Your task to perform on an android device: View the shopping cart on costco.com. Add logitech g903 to the cart on costco.com Image 0: 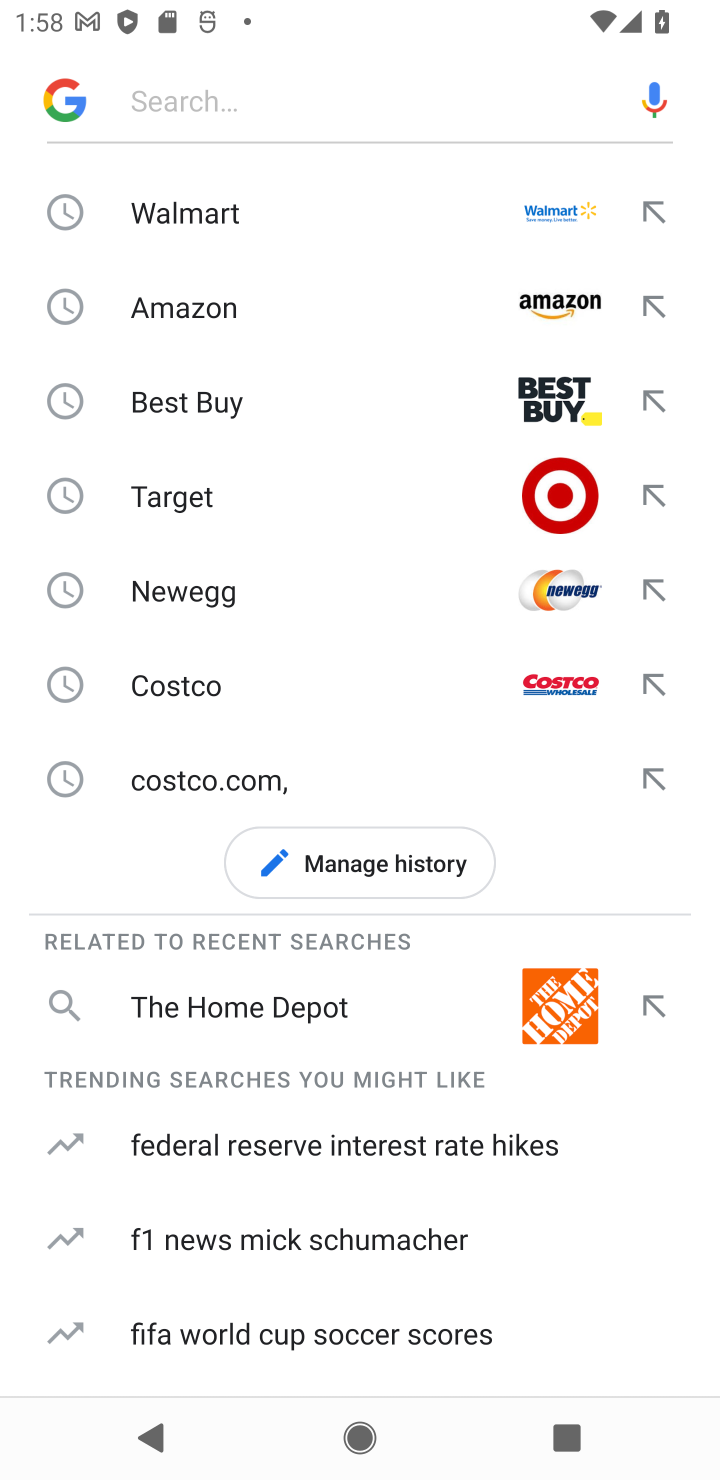
Step 0: press home button
Your task to perform on an android device: View the shopping cart on costco.com. Add logitech g903 to the cart on costco.com Image 1: 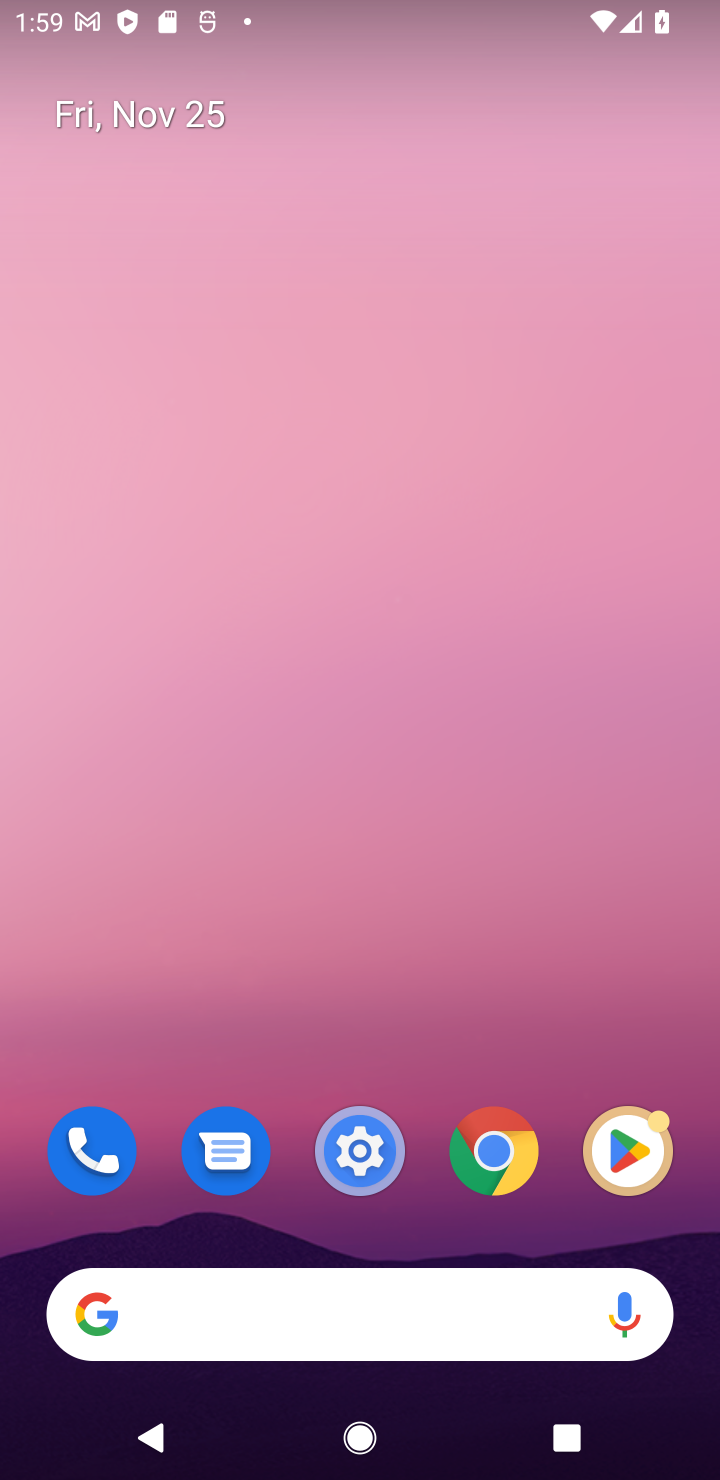
Step 1: click (401, 1343)
Your task to perform on an android device: View the shopping cart on costco.com. Add logitech g903 to the cart on costco.com Image 2: 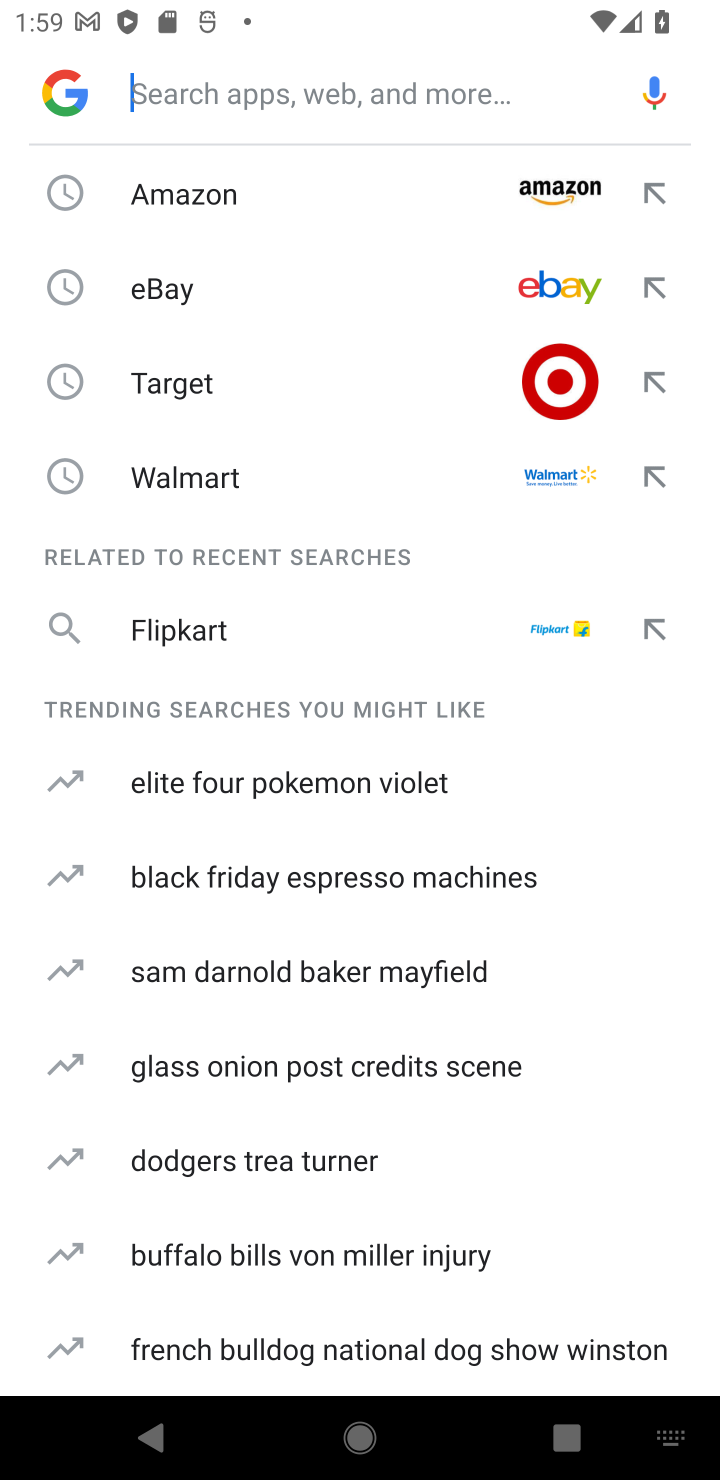
Step 2: type "costco"
Your task to perform on an android device: View the shopping cart on costco.com. Add logitech g903 to the cart on costco.com Image 3: 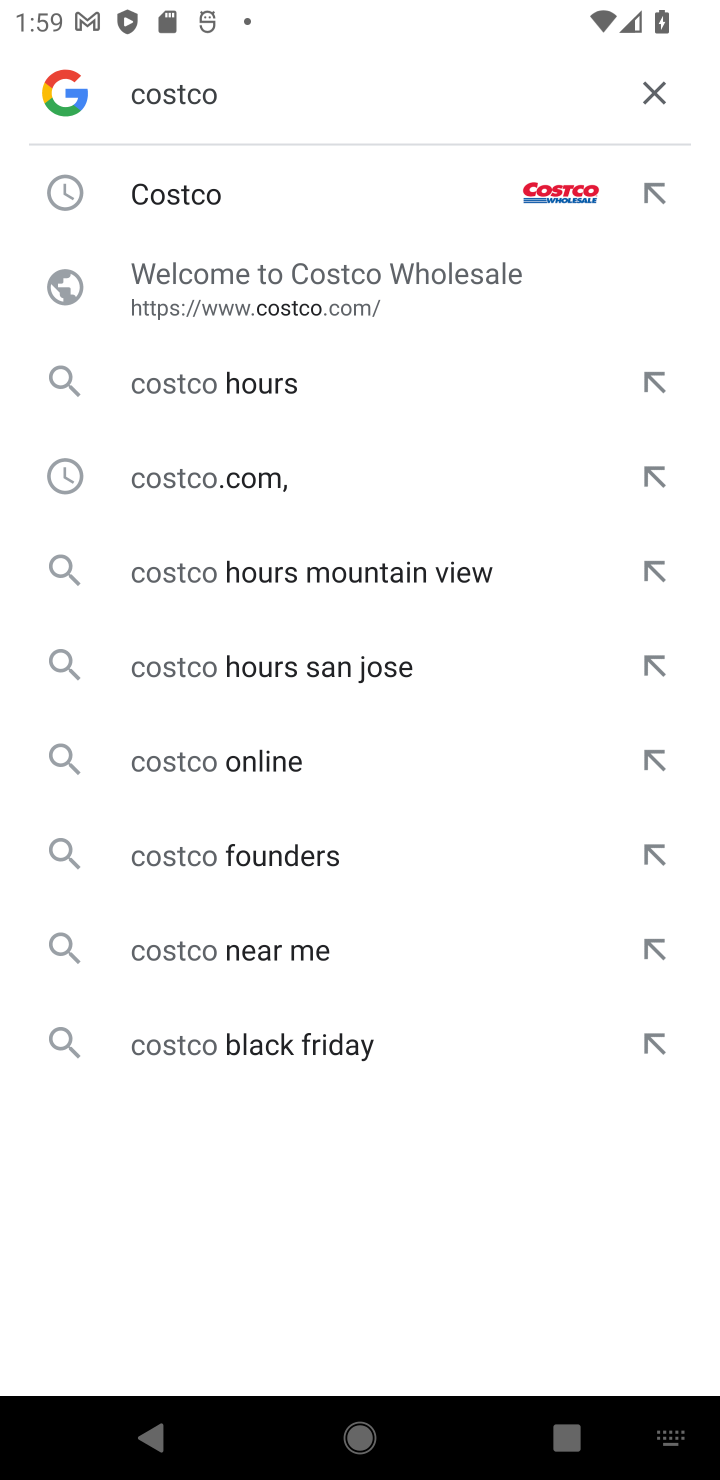
Step 3: click (309, 218)
Your task to perform on an android device: View the shopping cart on costco.com. Add logitech g903 to the cart on costco.com Image 4: 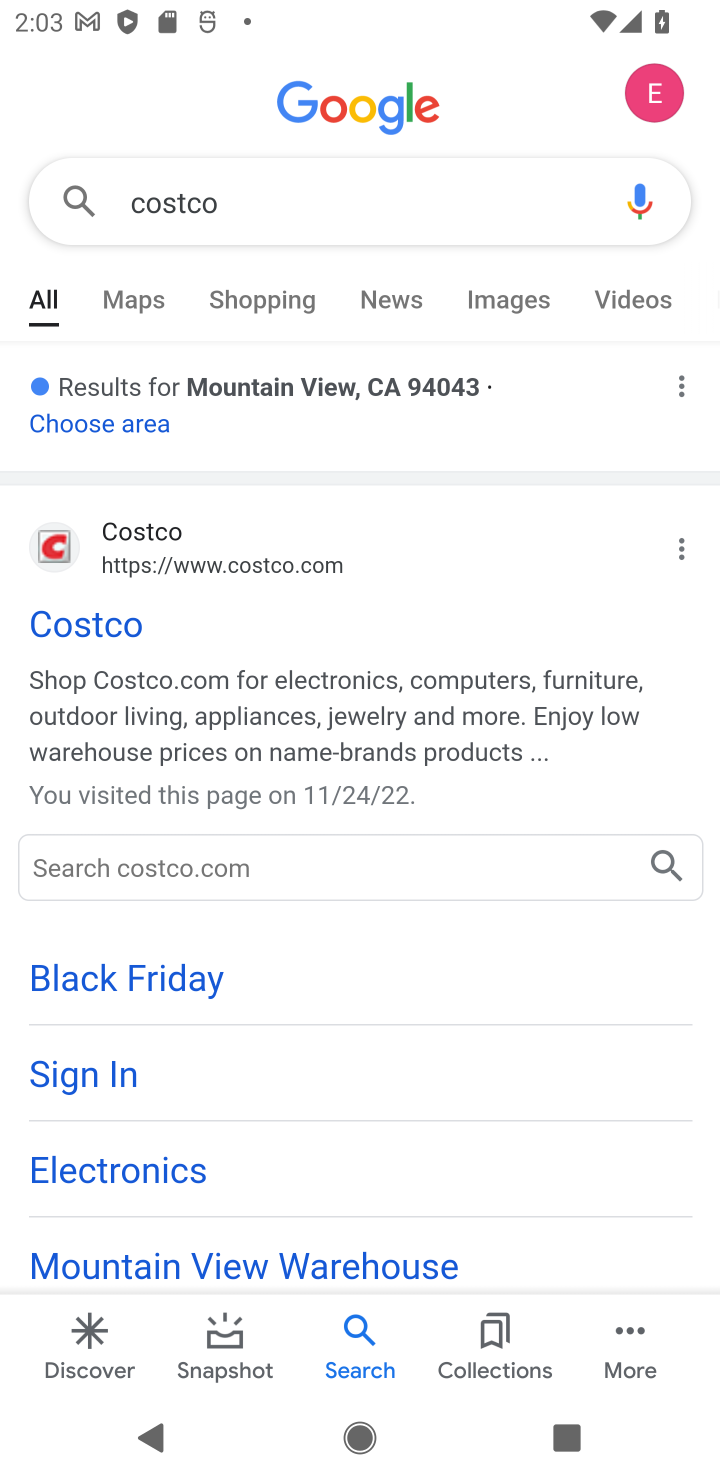
Step 4: task complete